Your task to perform on an android device: see tabs open on other devices in the chrome app Image 0: 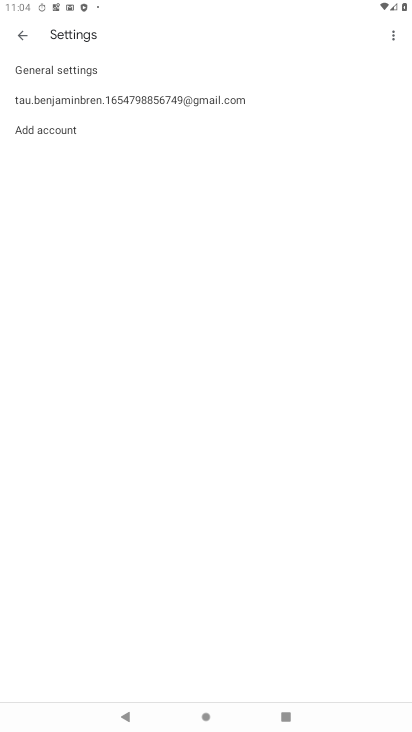
Step 0: press home button
Your task to perform on an android device: see tabs open on other devices in the chrome app Image 1: 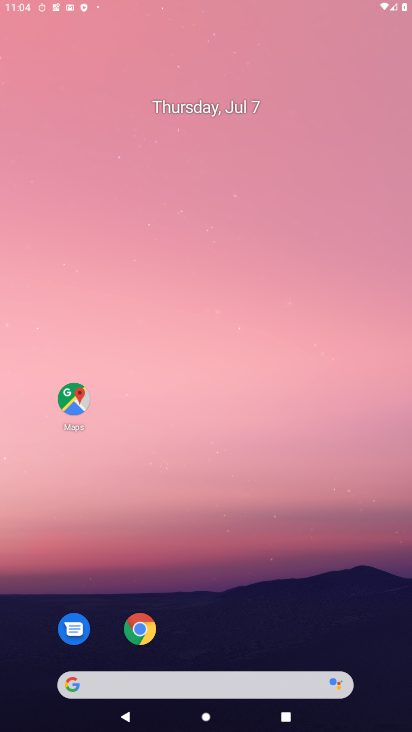
Step 1: drag from (160, 1) to (155, 659)
Your task to perform on an android device: see tabs open on other devices in the chrome app Image 2: 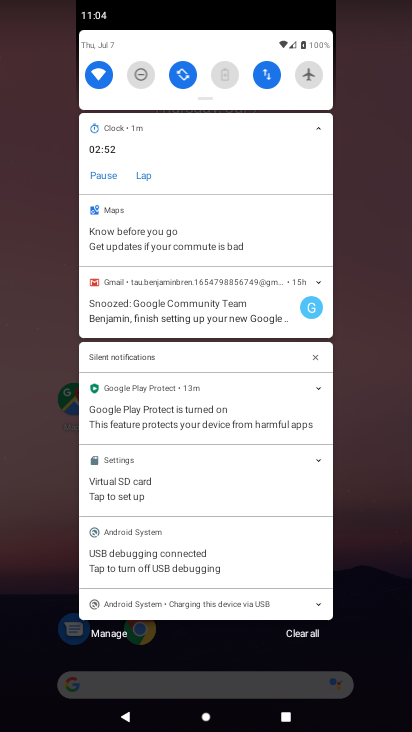
Step 2: click (385, 475)
Your task to perform on an android device: see tabs open on other devices in the chrome app Image 3: 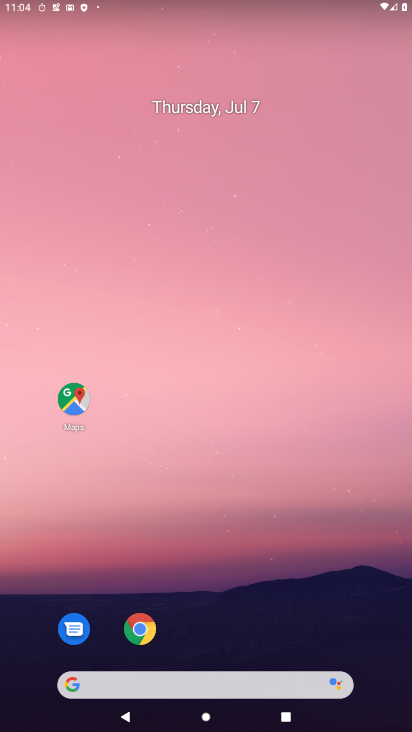
Step 3: click (141, 629)
Your task to perform on an android device: see tabs open on other devices in the chrome app Image 4: 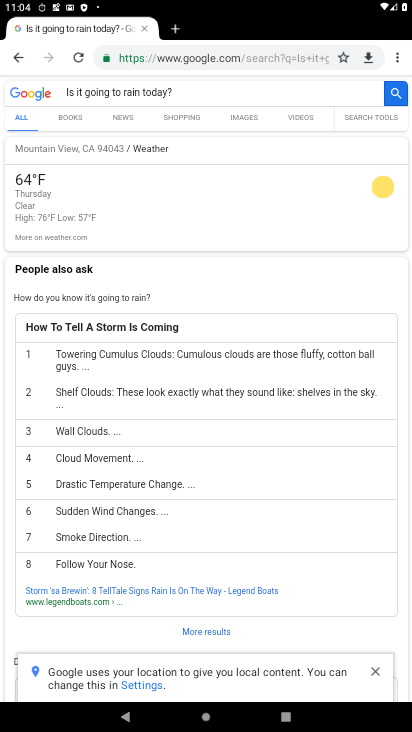
Step 4: task complete